Your task to perform on an android device: Open the map Image 0: 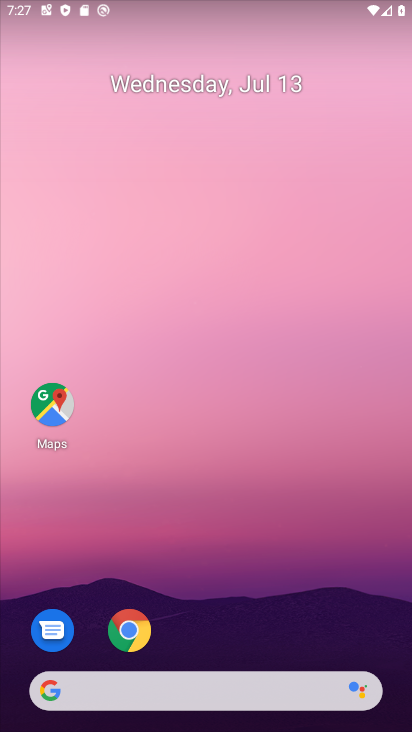
Step 0: drag from (354, 628) to (391, 79)
Your task to perform on an android device: Open the map Image 1: 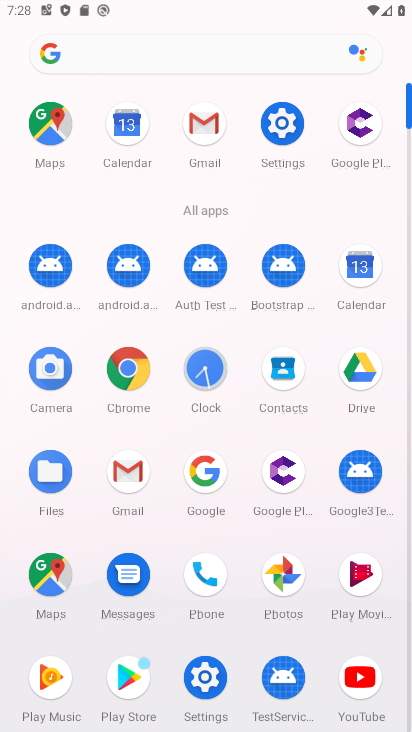
Step 1: click (56, 571)
Your task to perform on an android device: Open the map Image 2: 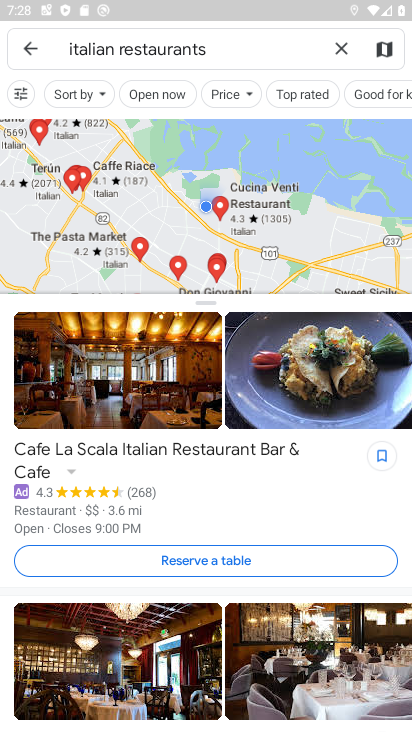
Step 2: task complete